Your task to perform on an android device: Go to location settings Image 0: 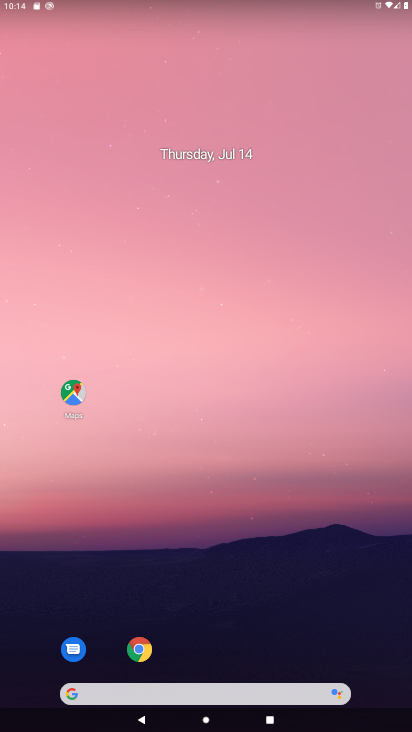
Step 0: drag from (157, 724) to (264, 68)
Your task to perform on an android device: Go to location settings Image 1: 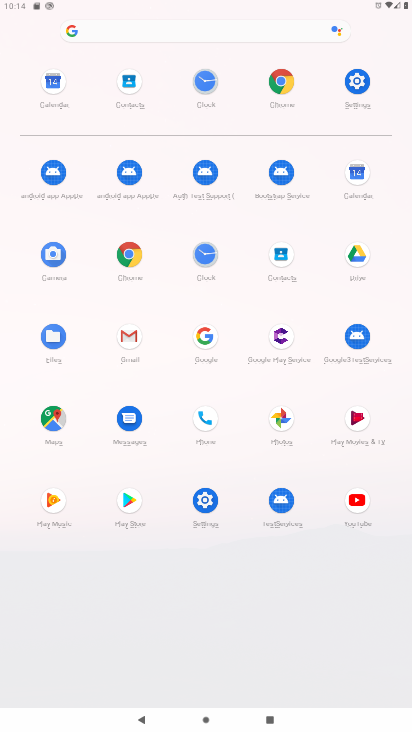
Step 1: click (363, 80)
Your task to perform on an android device: Go to location settings Image 2: 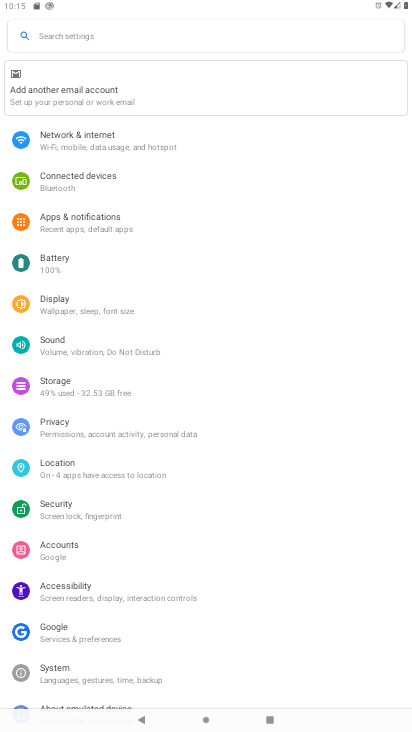
Step 2: click (91, 464)
Your task to perform on an android device: Go to location settings Image 3: 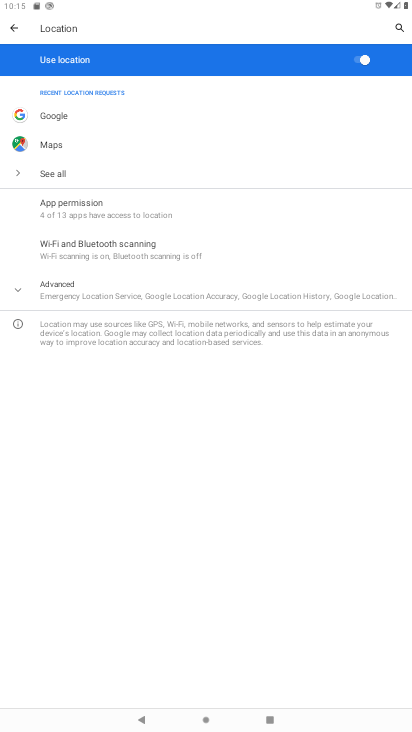
Step 3: task complete